Your task to perform on an android device: What's the weather going to be this weekend? Image 0: 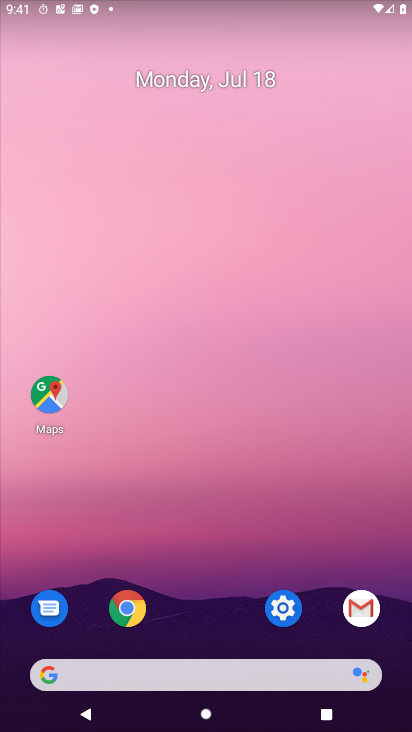
Step 0: press home button
Your task to perform on an android device: What's the weather going to be this weekend? Image 1: 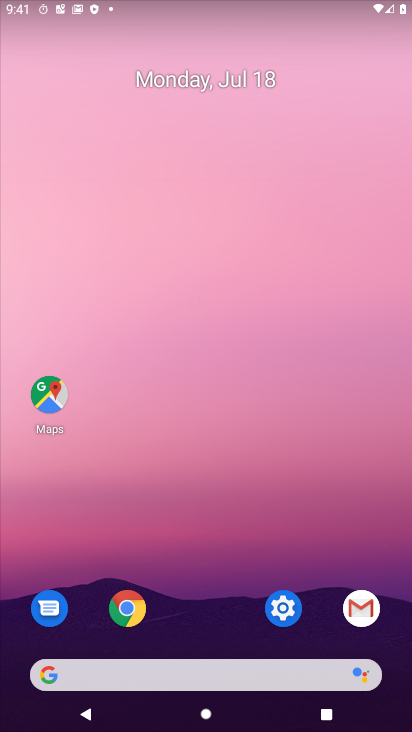
Step 1: drag from (229, 692) to (243, 239)
Your task to perform on an android device: What's the weather going to be this weekend? Image 2: 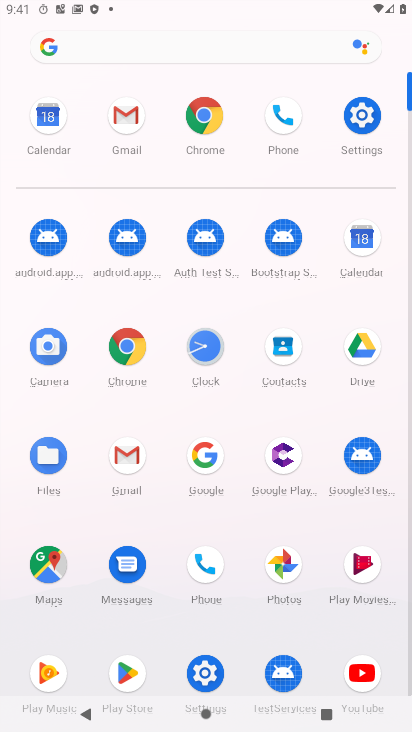
Step 2: click (122, 49)
Your task to perform on an android device: What's the weather going to be this weekend? Image 3: 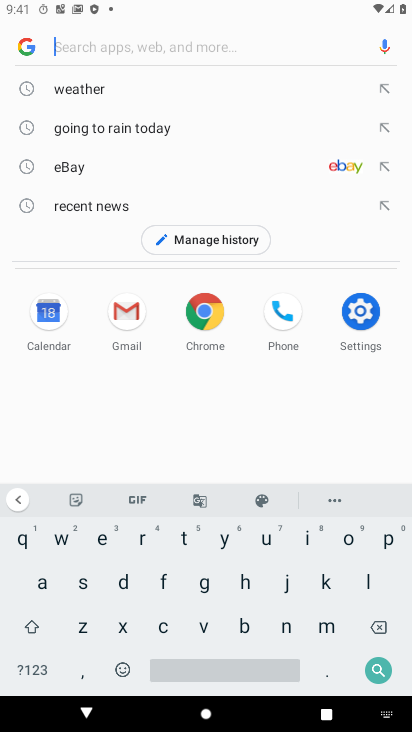
Step 3: click (77, 90)
Your task to perform on an android device: What's the weather going to be this weekend? Image 4: 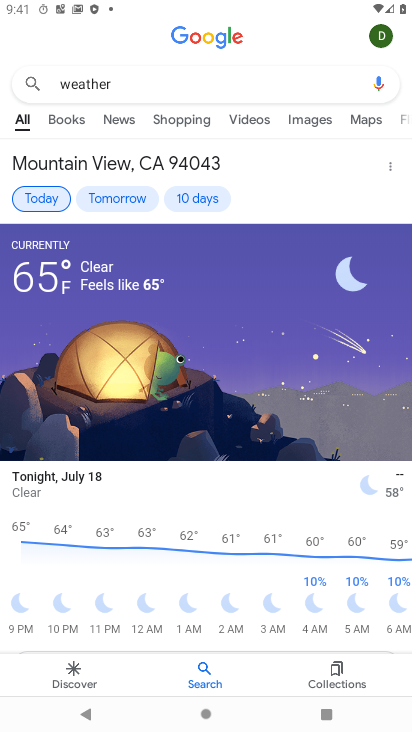
Step 4: click (201, 203)
Your task to perform on an android device: What's the weather going to be this weekend? Image 5: 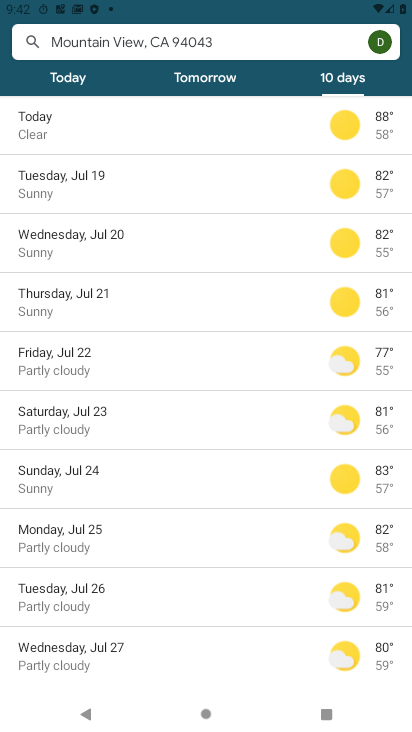
Step 5: task complete